Your task to perform on an android device: Open internet settings Image 0: 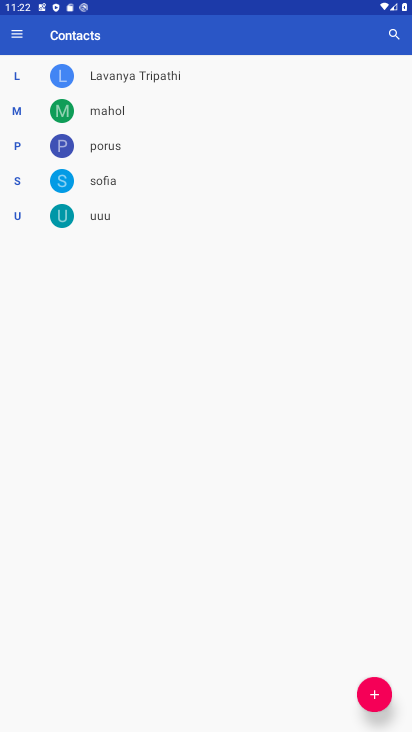
Step 0: press home button
Your task to perform on an android device: Open internet settings Image 1: 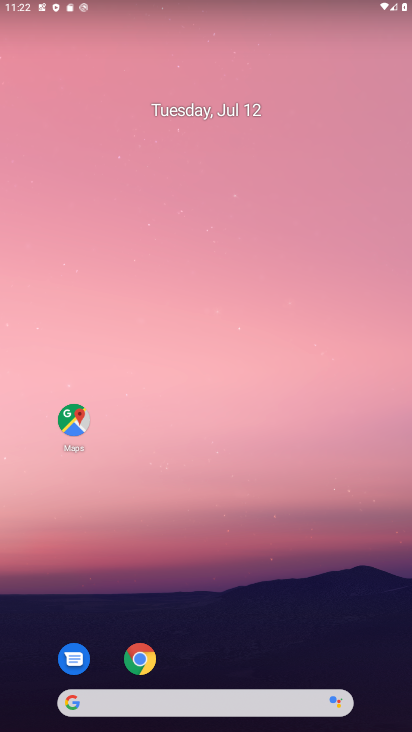
Step 1: drag from (299, 697) to (283, 94)
Your task to perform on an android device: Open internet settings Image 2: 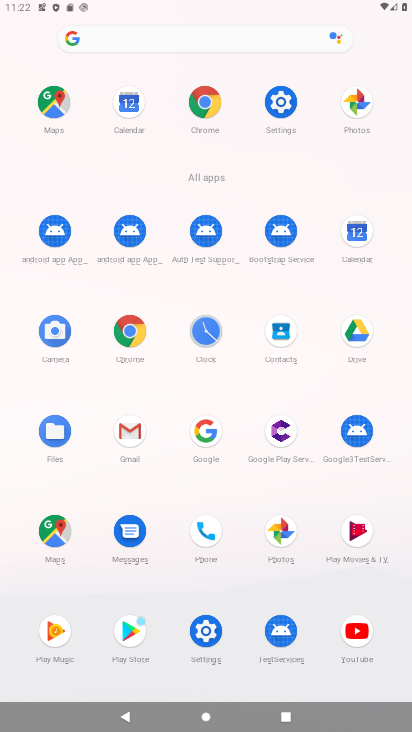
Step 2: click (284, 109)
Your task to perform on an android device: Open internet settings Image 3: 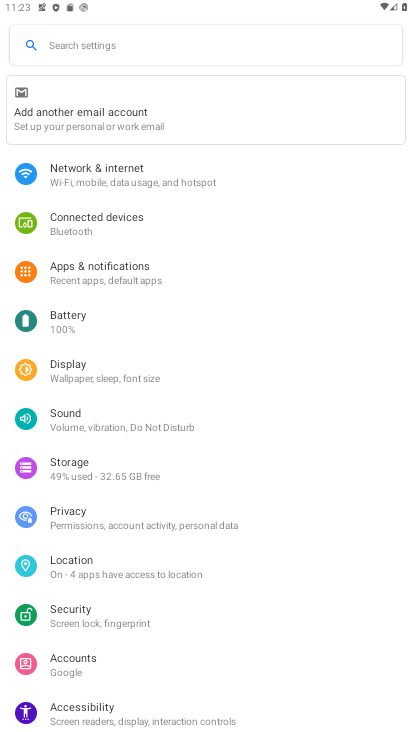
Step 3: click (141, 165)
Your task to perform on an android device: Open internet settings Image 4: 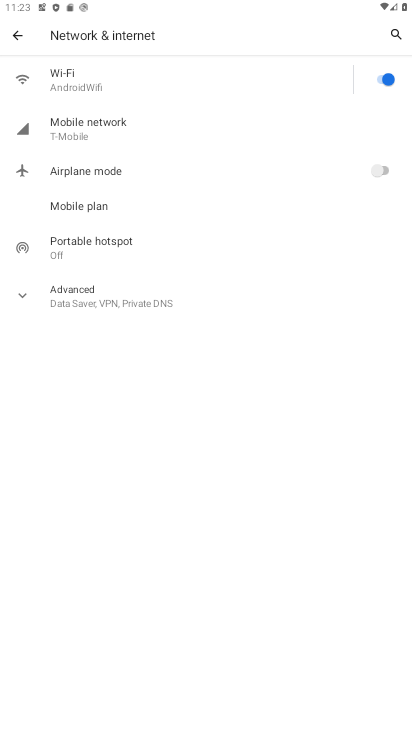
Step 4: task complete